Your task to perform on an android device: Open maps Image 0: 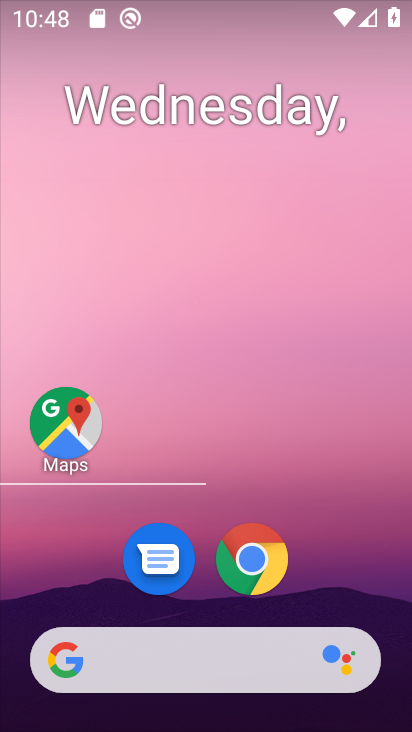
Step 0: drag from (291, 676) to (249, 121)
Your task to perform on an android device: Open maps Image 1: 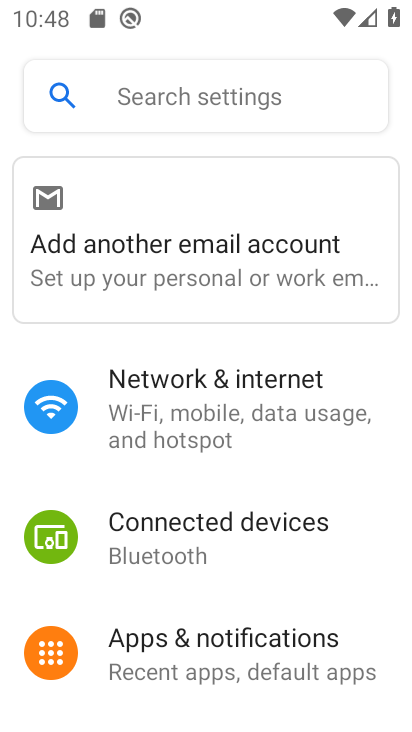
Step 1: press home button
Your task to perform on an android device: Open maps Image 2: 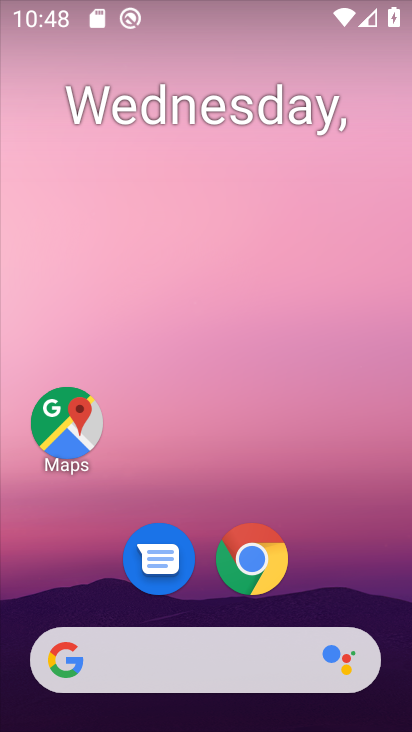
Step 2: drag from (267, 700) to (198, 45)
Your task to perform on an android device: Open maps Image 3: 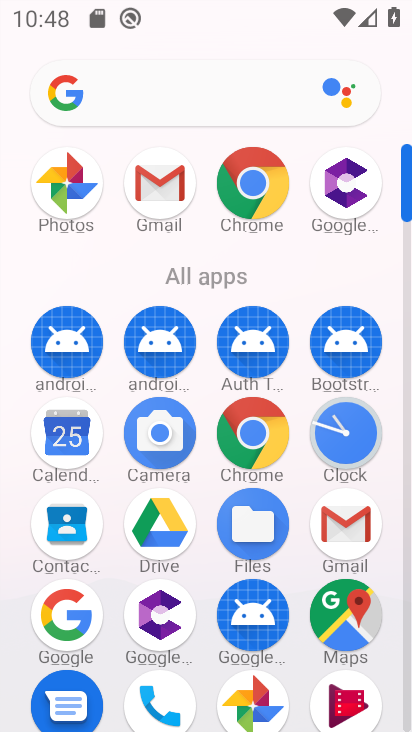
Step 3: click (340, 621)
Your task to perform on an android device: Open maps Image 4: 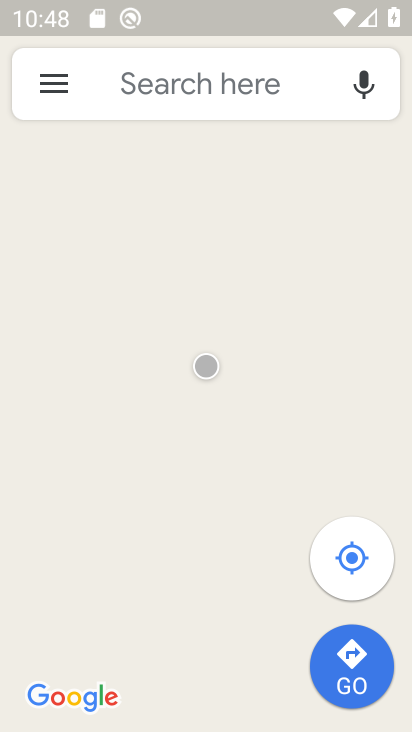
Step 4: click (347, 556)
Your task to perform on an android device: Open maps Image 5: 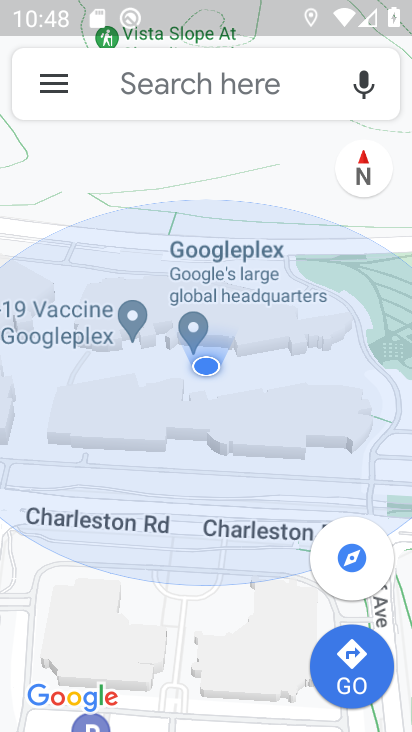
Step 5: task complete